Your task to perform on an android device: remove spam from my inbox in the gmail app Image 0: 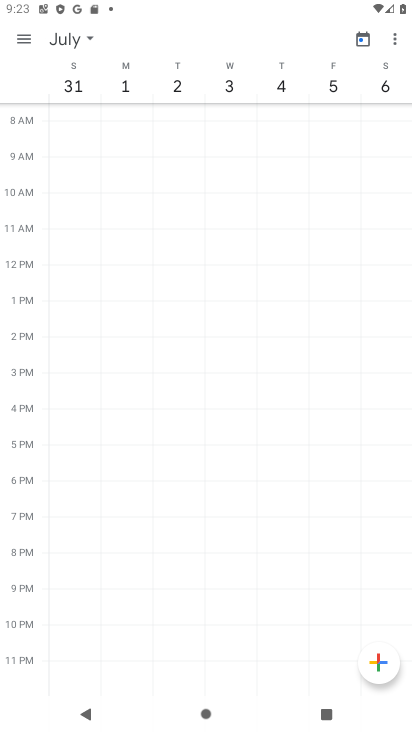
Step 0: press home button
Your task to perform on an android device: remove spam from my inbox in the gmail app Image 1: 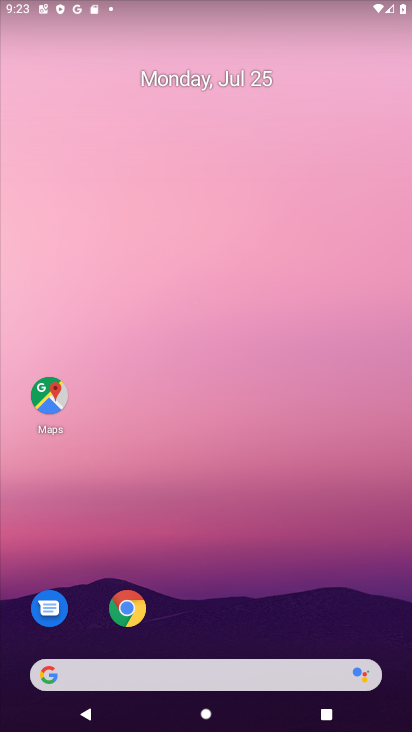
Step 1: drag from (210, 662) to (335, 73)
Your task to perform on an android device: remove spam from my inbox in the gmail app Image 2: 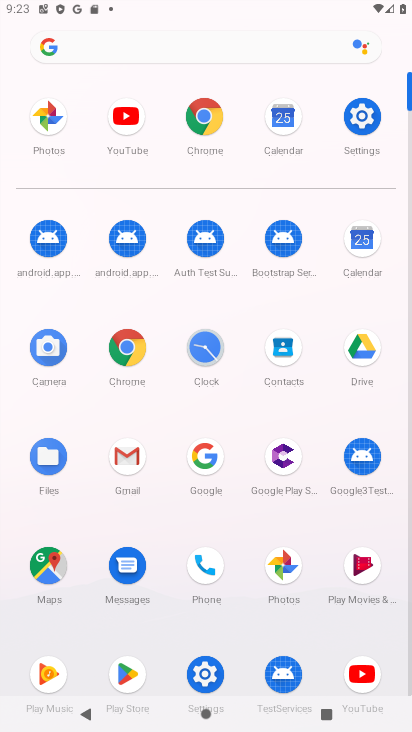
Step 2: click (121, 454)
Your task to perform on an android device: remove spam from my inbox in the gmail app Image 3: 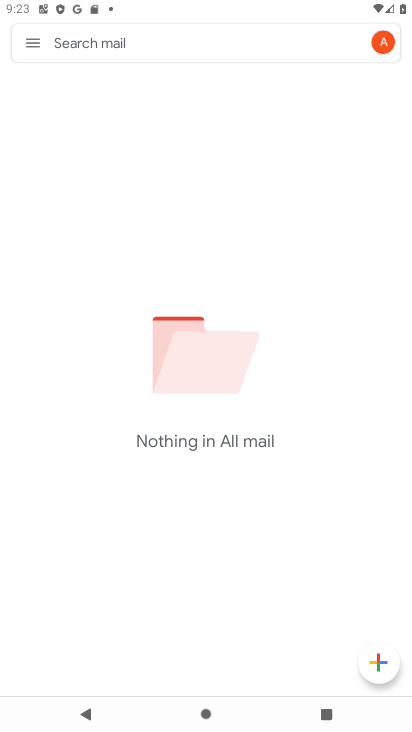
Step 3: click (26, 49)
Your task to perform on an android device: remove spam from my inbox in the gmail app Image 4: 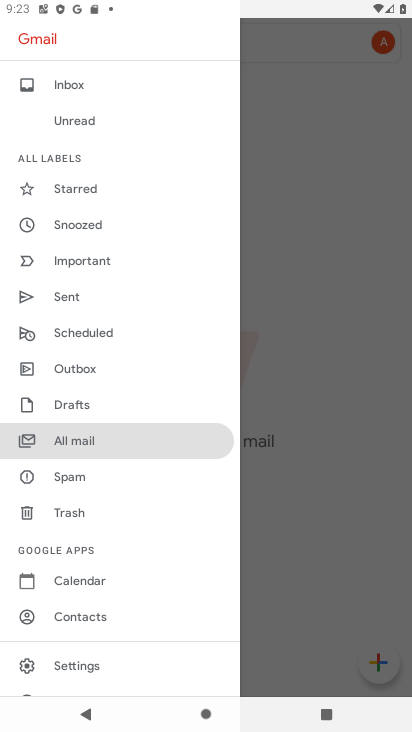
Step 4: click (91, 468)
Your task to perform on an android device: remove spam from my inbox in the gmail app Image 5: 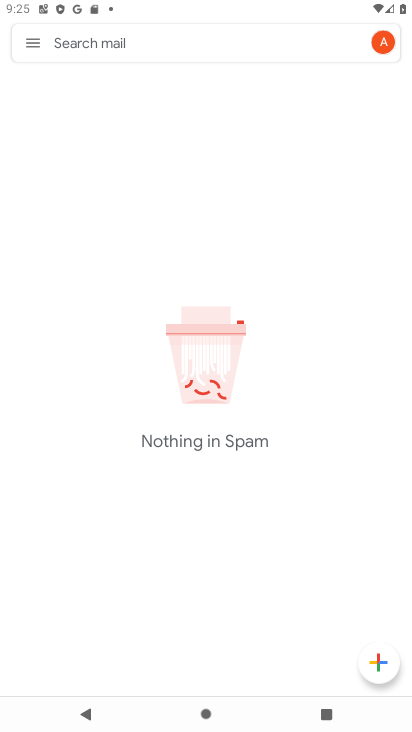
Step 5: task complete